Your task to perform on an android device: turn pop-ups on in chrome Image 0: 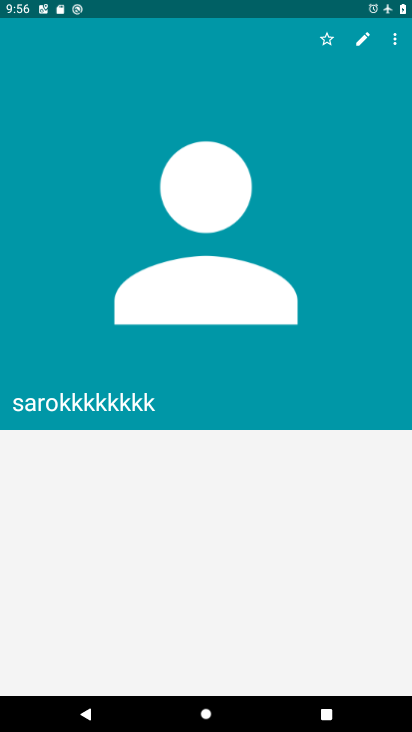
Step 0: click (165, 589)
Your task to perform on an android device: turn pop-ups on in chrome Image 1: 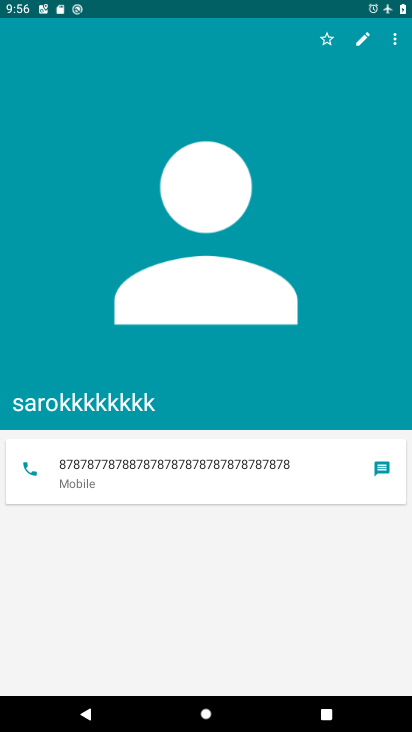
Step 1: press home button
Your task to perform on an android device: turn pop-ups on in chrome Image 2: 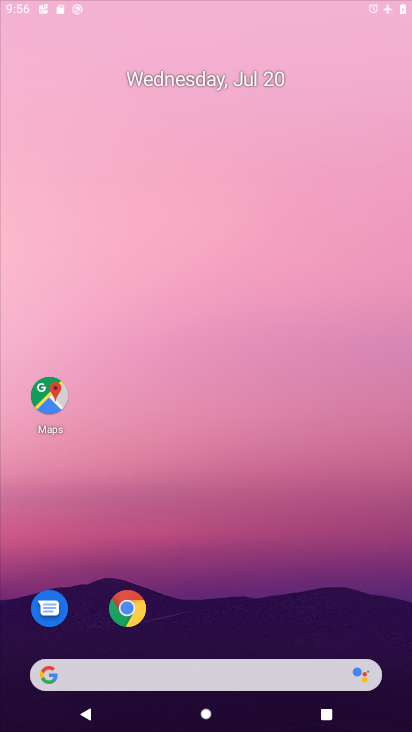
Step 2: drag from (290, 630) to (290, 225)
Your task to perform on an android device: turn pop-ups on in chrome Image 3: 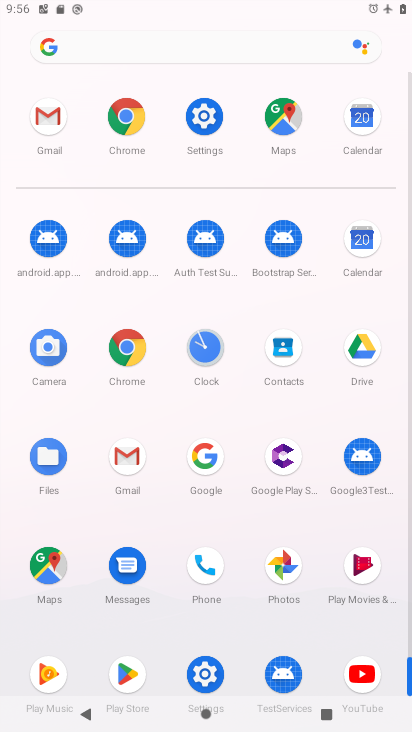
Step 3: click (133, 106)
Your task to perform on an android device: turn pop-ups on in chrome Image 4: 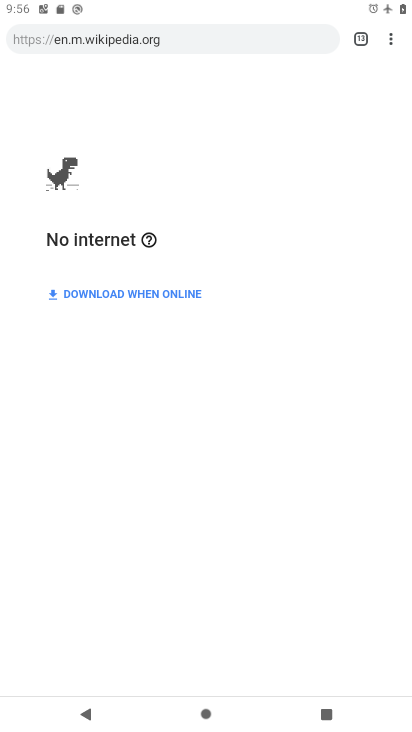
Step 4: click (392, 35)
Your task to perform on an android device: turn pop-ups on in chrome Image 5: 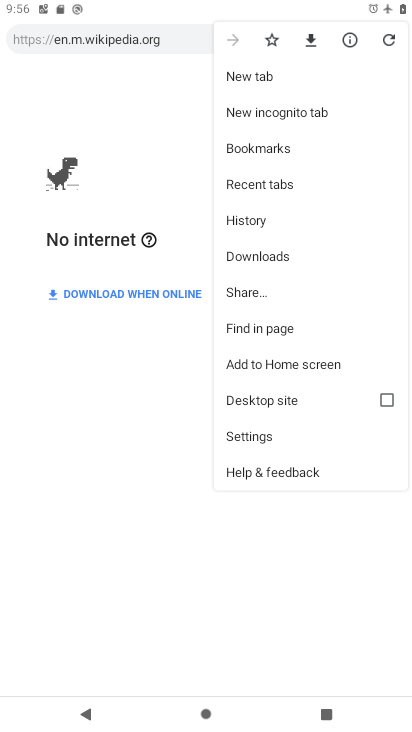
Step 5: click (249, 426)
Your task to perform on an android device: turn pop-ups on in chrome Image 6: 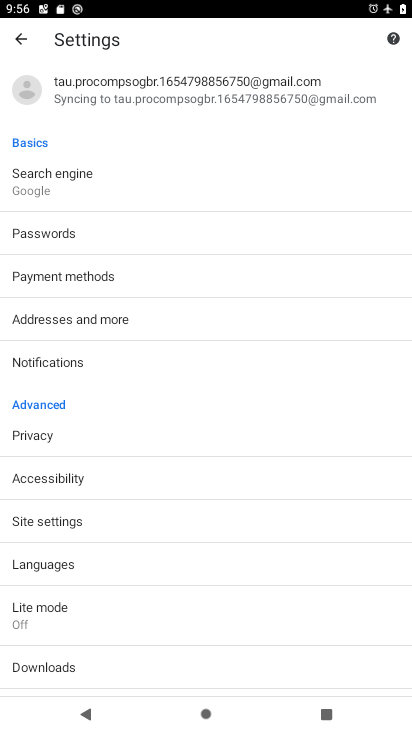
Step 6: click (104, 533)
Your task to perform on an android device: turn pop-ups on in chrome Image 7: 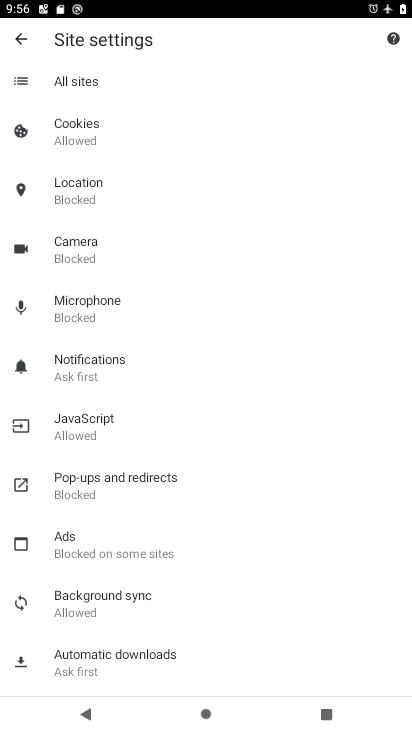
Step 7: click (143, 484)
Your task to perform on an android device: turn pop-ups on in chrome Image 8: 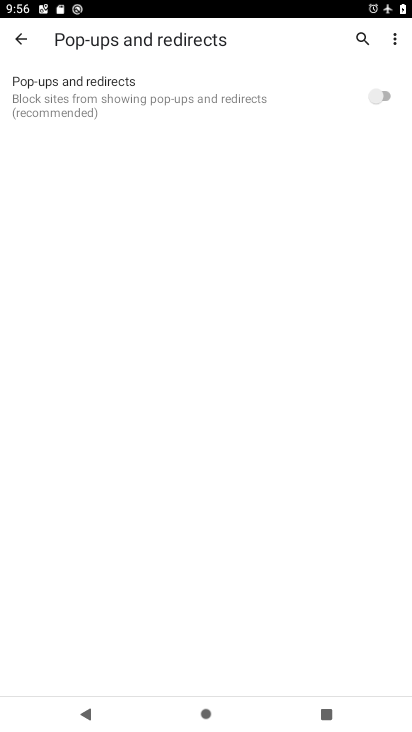
Step 8: click (381, 101)
Your task to perform on an android device: turn pop-ups on in chrome Image 9: 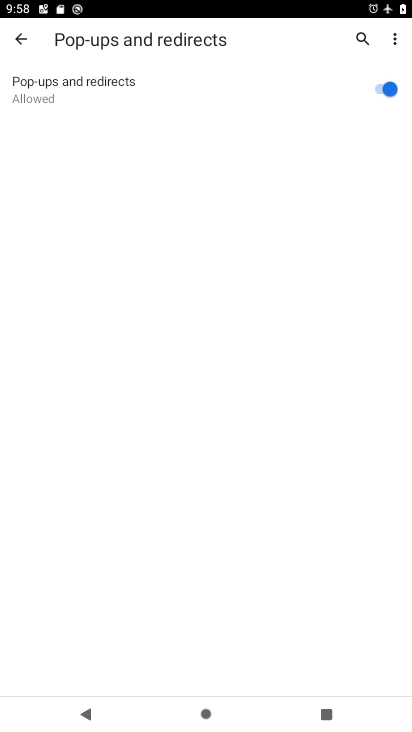
Step 9: task complete